Your task to perform on an android device: See recent photos Image 0: 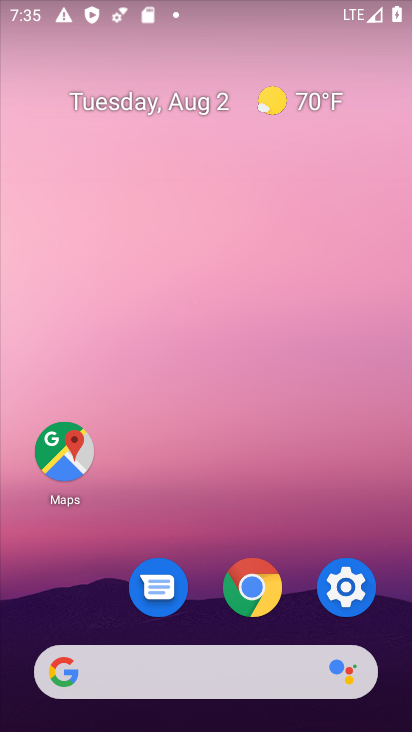
Step 0: drag from (298, 662) to (287, 280)
Your task to perform on an android device: See recent photos Image 1: 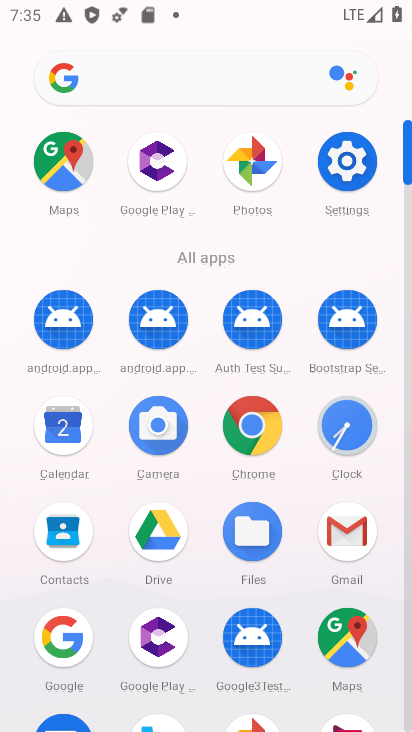
Step 1: click (230, 155)
Your task to perform on an android device: See recent photos Image 2: 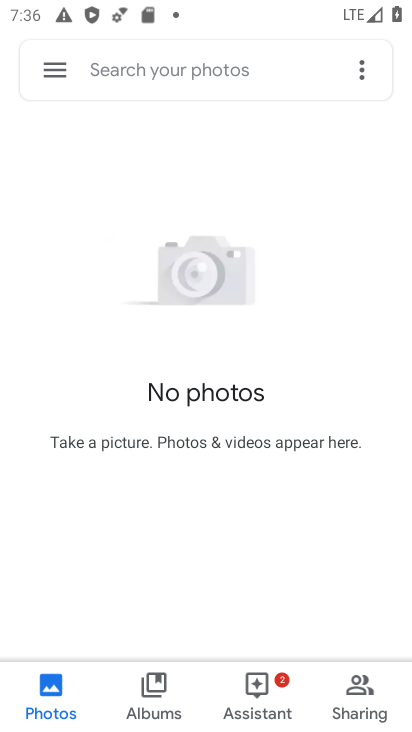
Step 2: task complete